Your task to perform on an android device: Open Google Image 0: 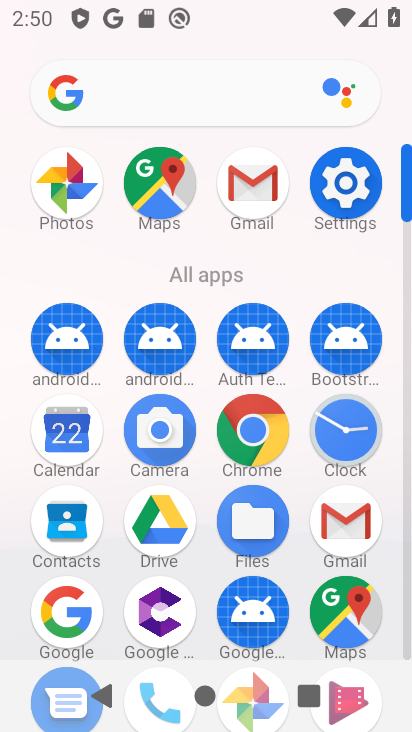
Step 0: click (65, 611)
Your task to perform on an android device: Open Google Image 1: 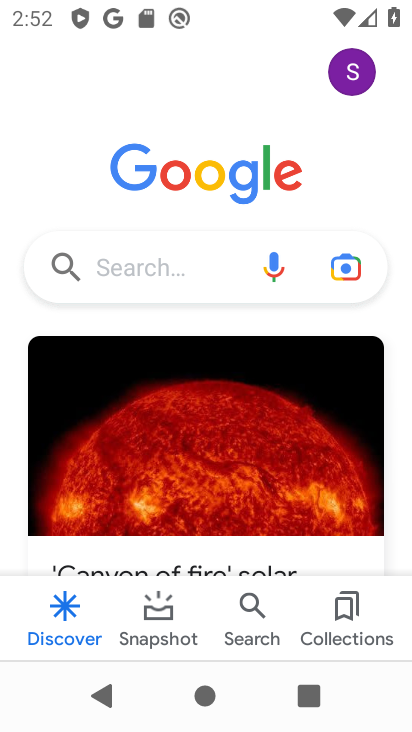
Step 1: task complete